Your task to perform on an android device: check google app version Image 0: 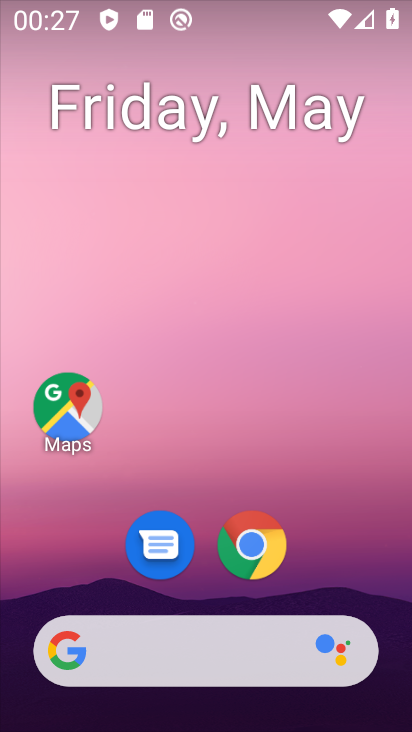
Step 0: click (73, 650)
Your task to perform on an android device: check google app version Image 1: 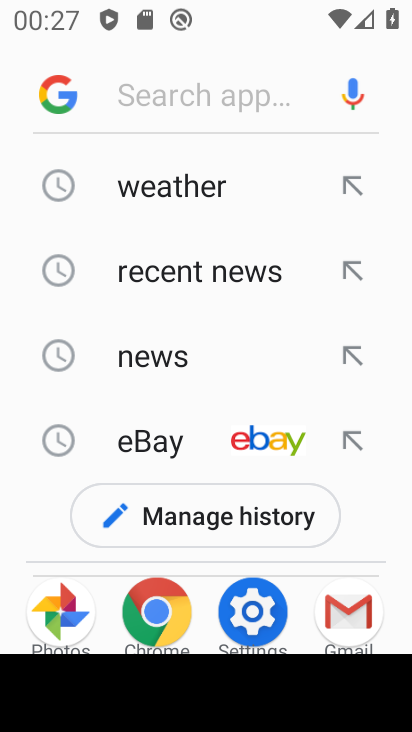
Step 1: click (67, 104)
Your task to perform on an android device: check google app version Image 2: 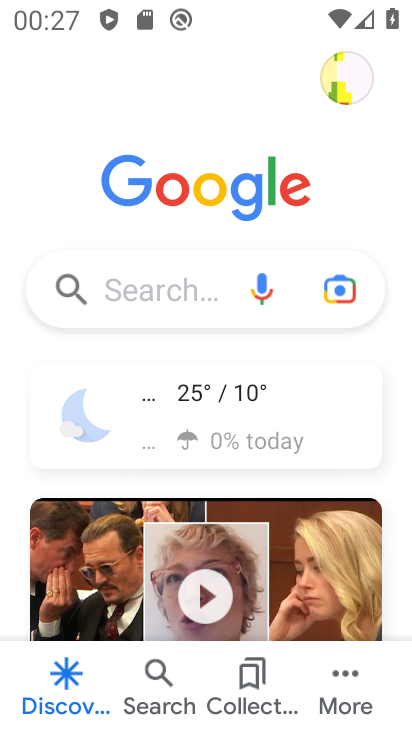
Step 2: click (379, 682)
Your task to perform on an android device: check google app version Image 3: 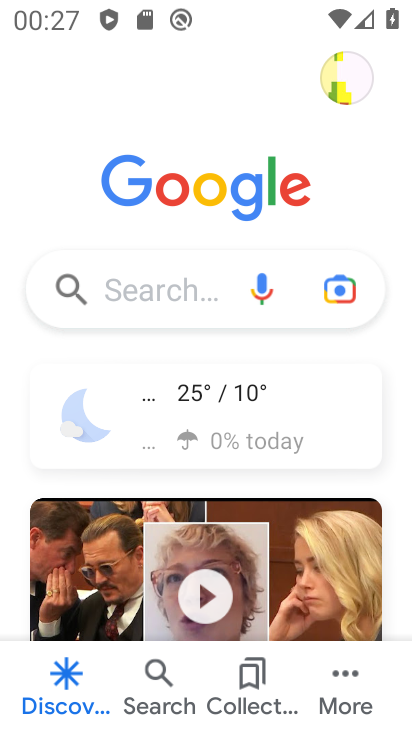
Step 3: click (341, 689)
Your task to perform on an android device: check google app version Image 4: 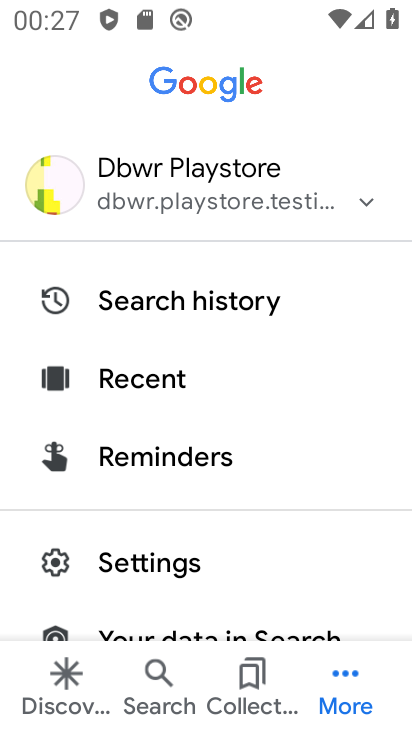
Step 4: click (151, 573)
Your task to perform on an android device: check google app version Image 5: 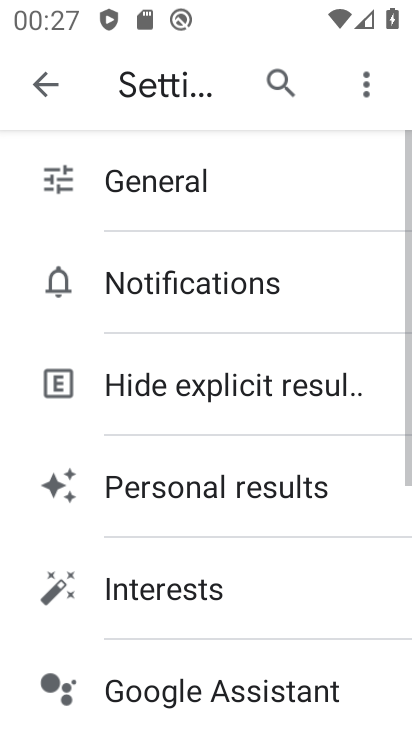
Step 5: drag from (207, 620) to (207, 213)
Your task to perform on an android device: check google app version Image 6: 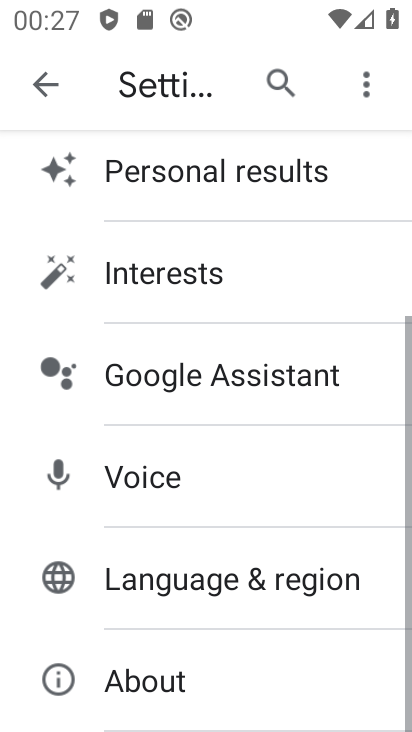
Step 6: click (145, 666)
Your task to perform on an android device: check google app version Image 7: 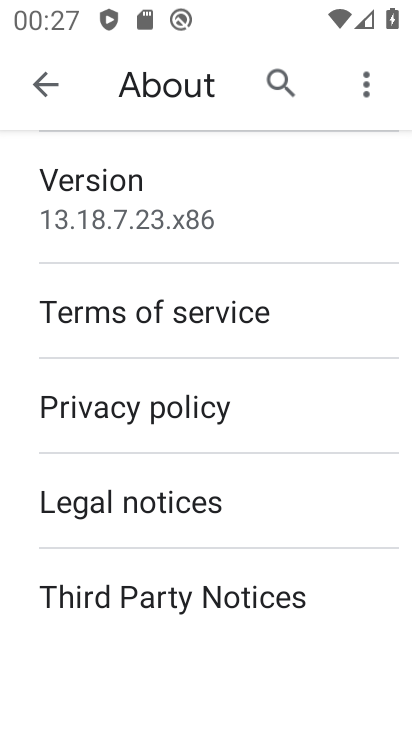
Step 7: task complete